Your task to perform on an android device: turn on showing notifications on the lock screen Image 0: 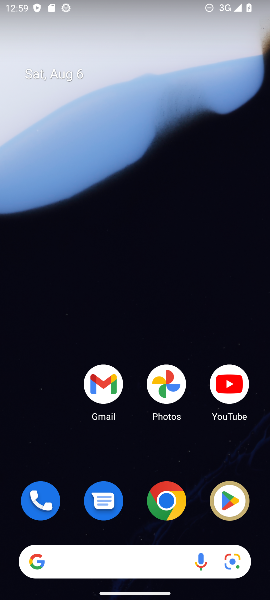
Step 0: drag from (128, 501) to (128, 151)
Your task to perform on an android device: turn on showing notifications on the lock screen Image 1: 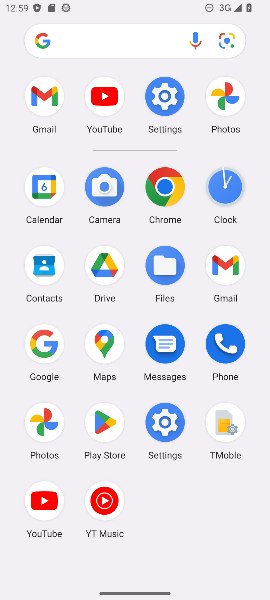
Step 1: drag from (133, 439) to (133, 321)
Your task to perform on an android device: turn on showing notifications on the lock screen Image 2: 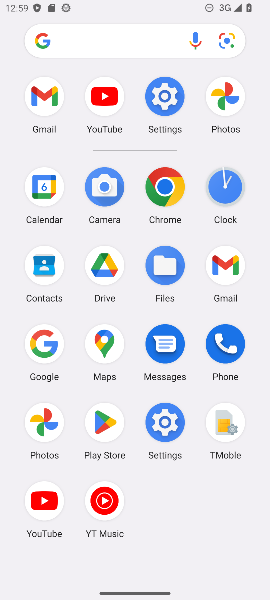
Step 2: click (163, 433)
Your task to perform on an android device: turn on showing notifications on the lock screen Image 3: 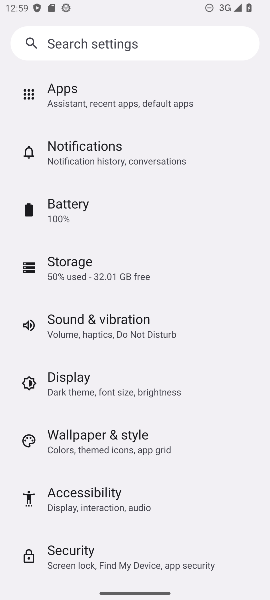
Step 3: click (86, 143)
Your task to perform on an android device: turn on showing notifications on the lock screen Image 4: 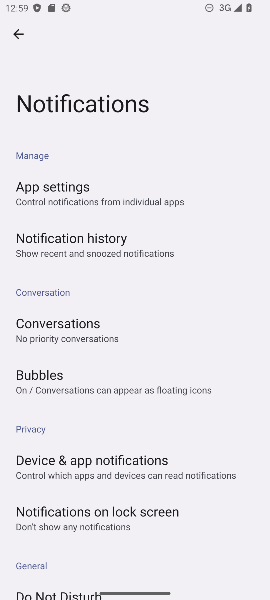
Step 4: click (113, 523)
Your task to perform on an android device: turn on showing notifications on the lock screen Image 5: 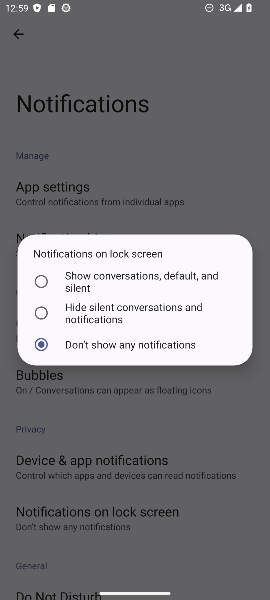
Step 5: click (36, 283)
Your task to perform on an android device: turn on showing notifications on the lock screen Image 6: 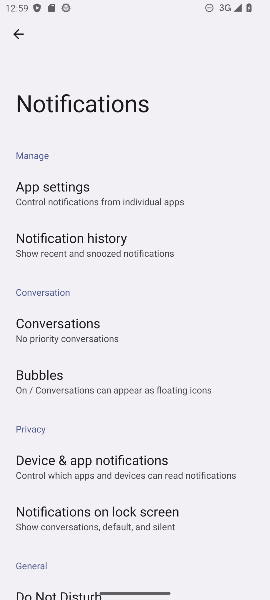
Step 6: task complete